Your task to perform on an android device: Go to network settings Image 0: 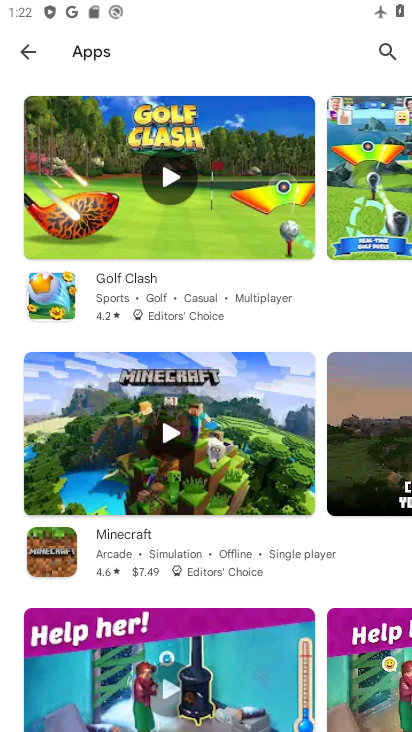
Step 0: press home button
Your task to perform on an android device: Go to network settings Image 1: 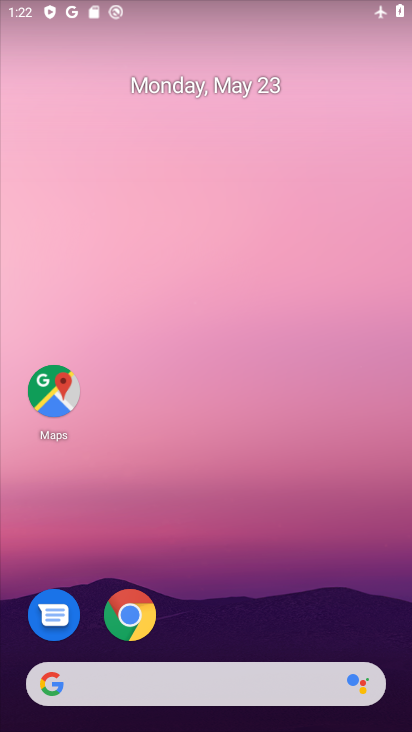
Step 1: drag from (228, 663) to (242, 0)
Your task to perform on an android device: Go to network settings Image 2: 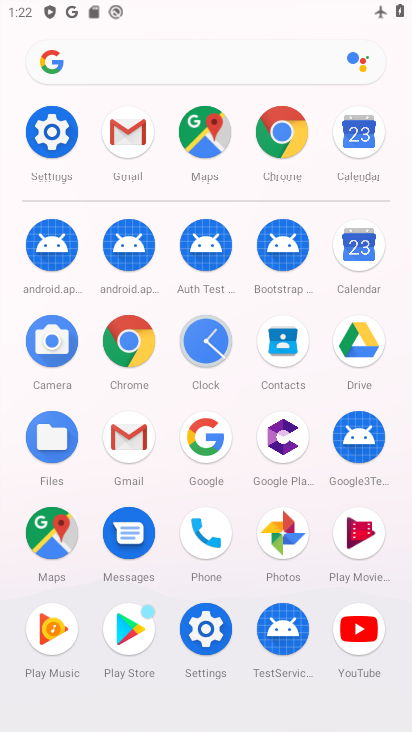
Step 2: click (49, 140)
Your task to perform on an android device: Go to network settings Image 3: 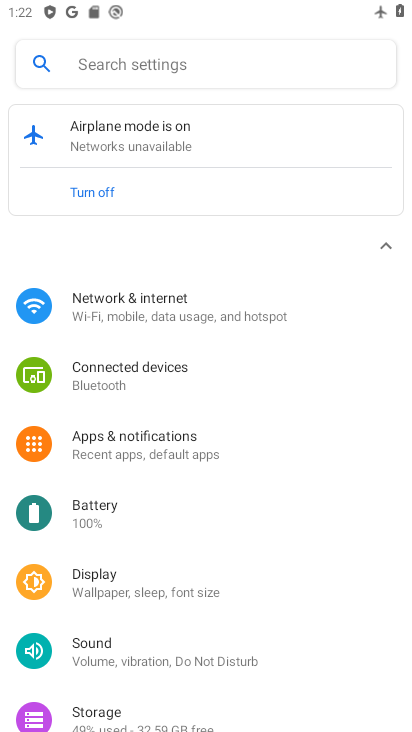
Step 3: click (108, 283)
Your task to perform on an android device: Go to network settings Image 4: 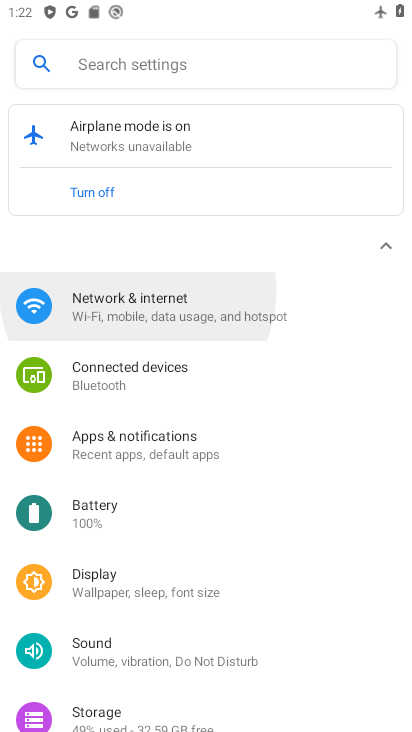
Step 4: click (108, 283)
Your task to perform on an android device: Go to network settings Image 5: 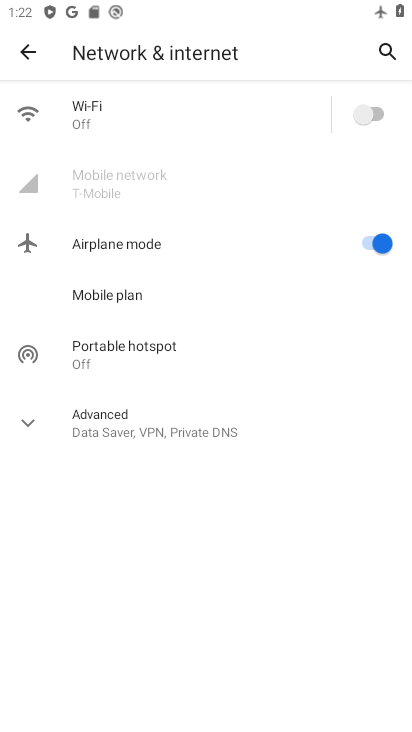
Step 5: task complete